Your task to perform on an android device: add a contact Image 0: 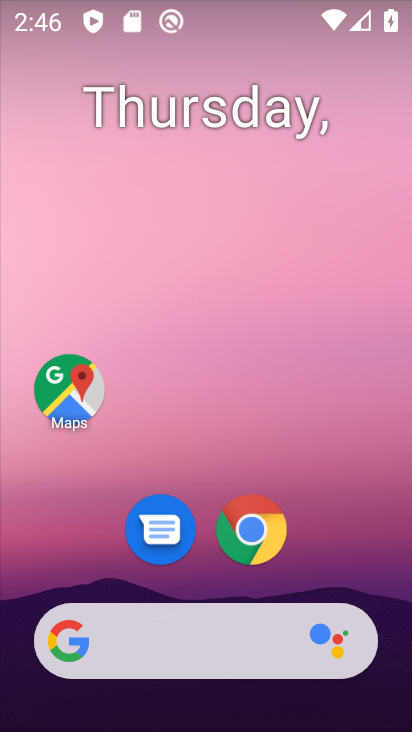
Step 0: drag from (231, 573) to (229, 304)
Your task to perform on an android device: add a contact Image 1: 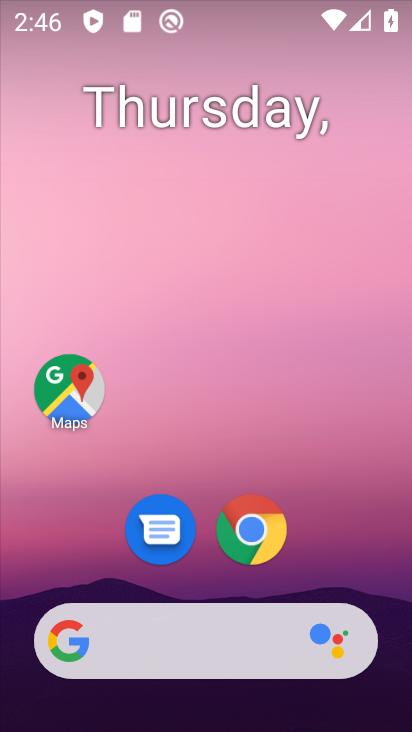
Step 1: drag from (204, 548) to (193, 285)
Your task to perform on an android device: add a contact Image 2: 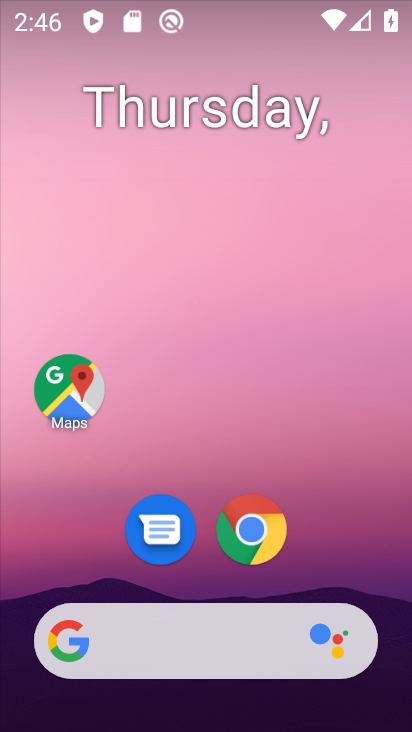
Step 2: drag from (186, 572) to (224, 224)
Your task to perform on an android device: add a contact Image 3: 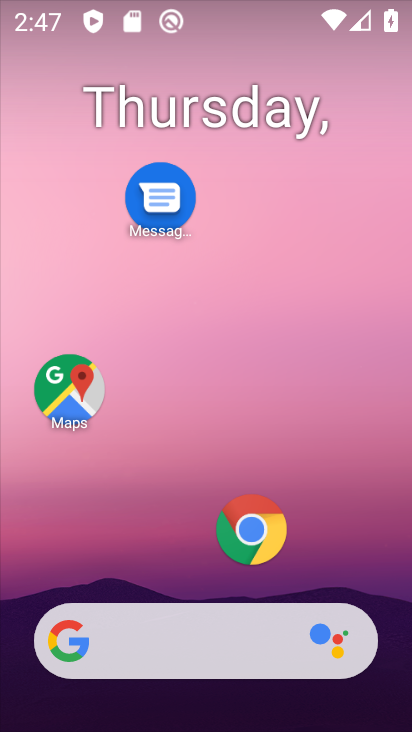
Step 3: drag from (193, 578) to (194, 111)
Your task to perform on an android device: add a contact Image 4: 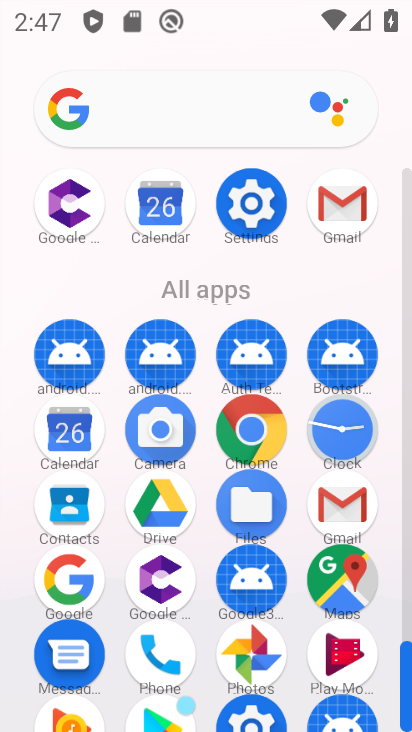
Step 4: click (60, 499)
Your task to perform on an android device: add a contact Image 5: 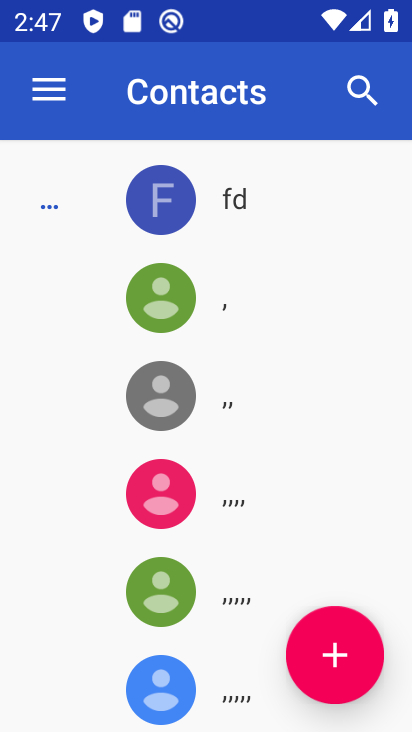
Step 5: click (351, 645)
Your task to perform on an android device: add a contact Image 6: 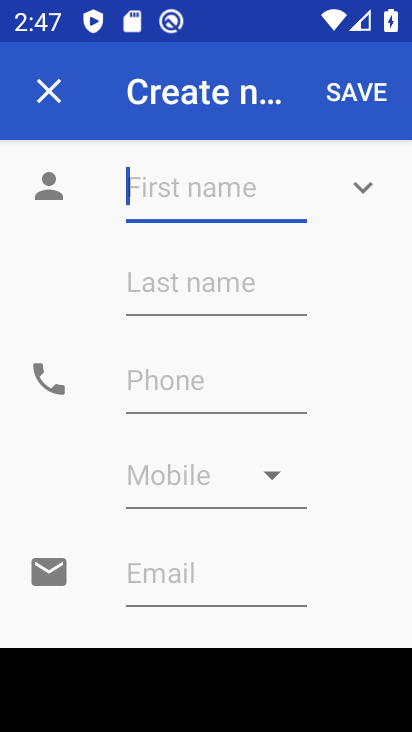
Step 6: type "hhhhlol"
Your task to perform on an android device: add a contact Image 7: 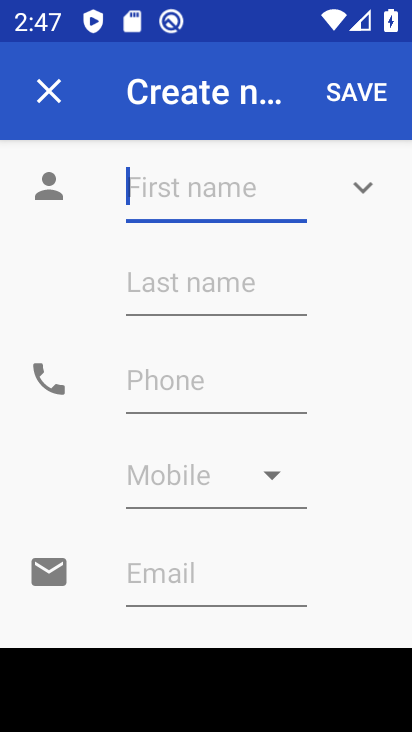
Step 7: click (205, 292)
Your task to perform on an android device: add a contact Image 8: 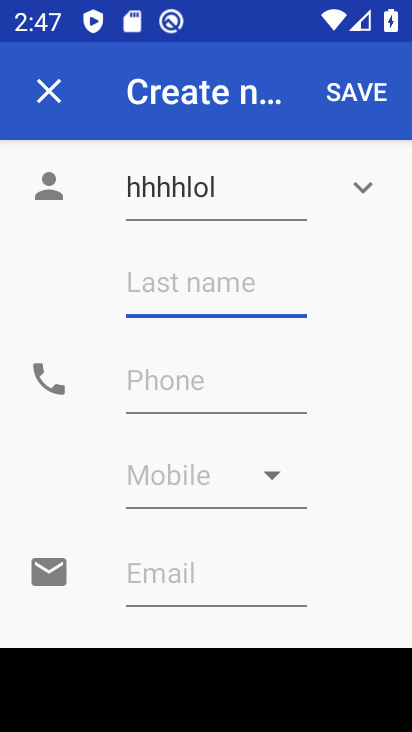
Step 8: type "fgxfgvhb"
Your task to perform on an android device: add a contact Image 9: 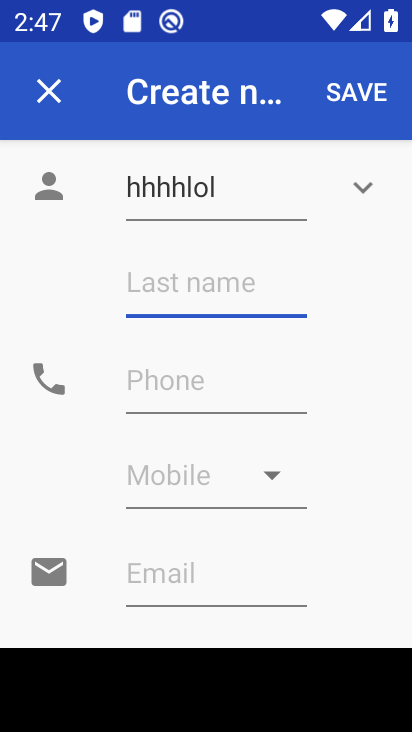
Step 9: click (184, 392)
Your task to perform on an android device: add a contact Image 10: 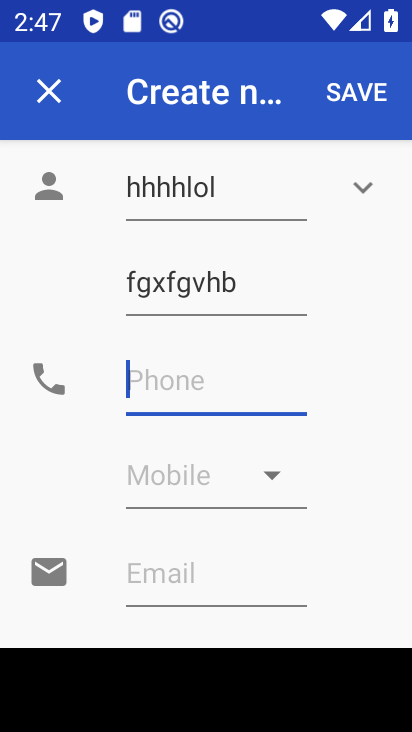
Step 10: type "56678799"
Your task to perform on an android device: add a contact Image 11: 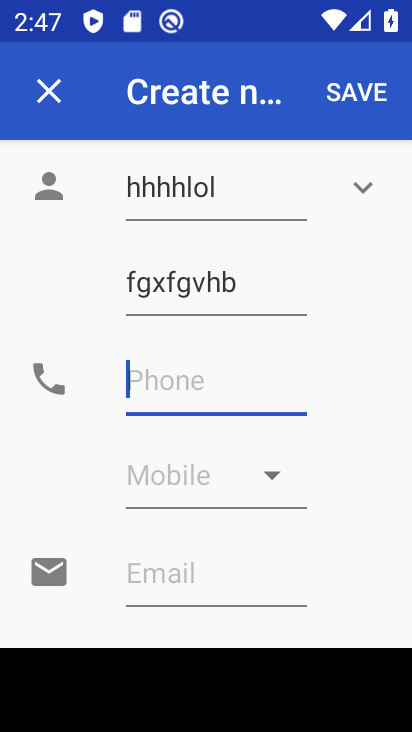
Step 11: click (222, 473)
Your task to perform on an android device: add a contact Image 12: 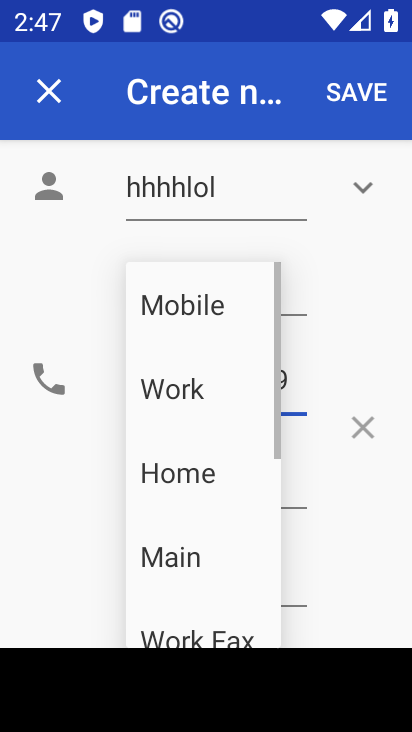
Step 12: click (357, 86)
Your task to perform on an android device: add a contact Image 13: 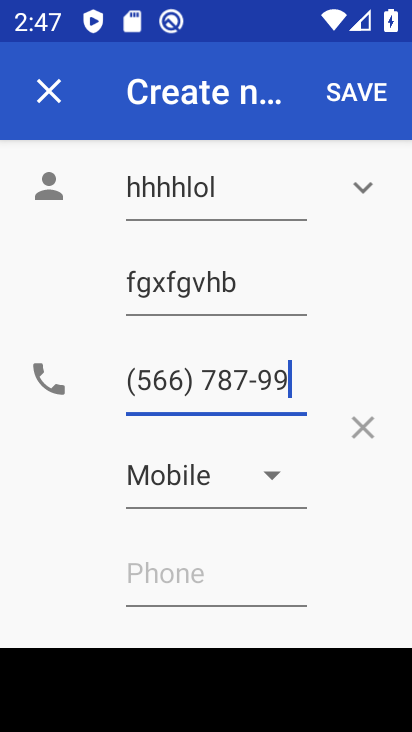
Step 13: click (355, 91)
Your task to perform on an android device: add a contact Image 14: 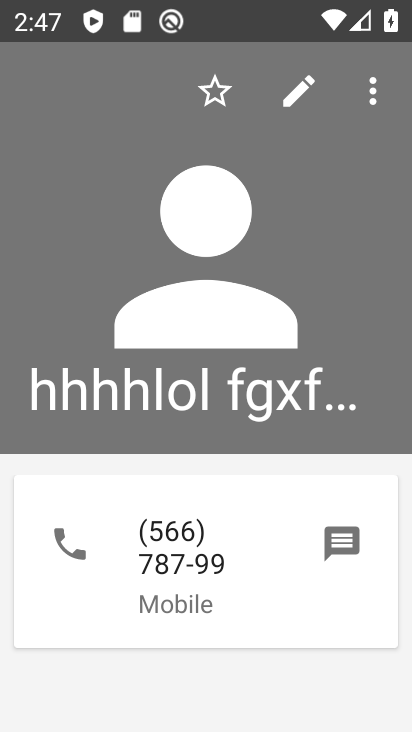
Step 14: task complete